Your task to perform on an android device: Do I have any events this weekend? Image 0: 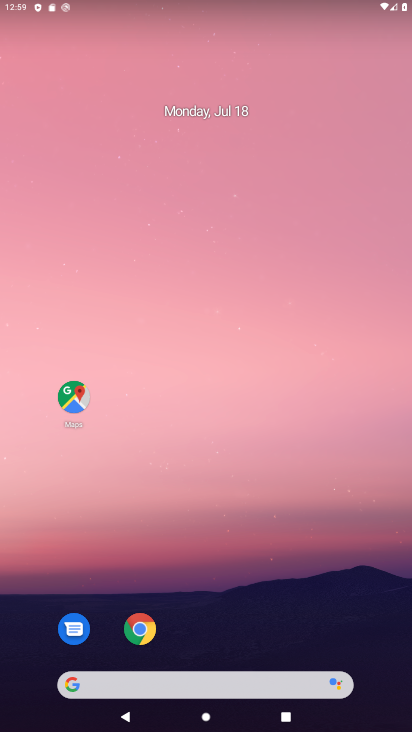
Step 0: click (197, 116)
Your task to perform on an android device: Do I have any events this weekend? Image 1: 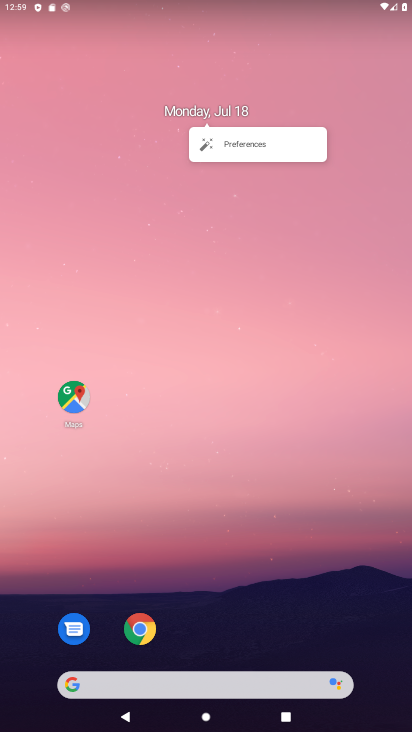
Step 1: click (172, 120)
Your task to perform on an android device: Do I have any events this weekend? Image 2: 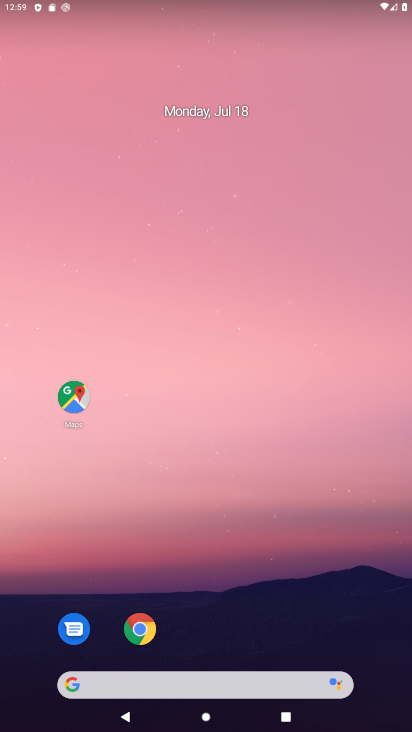
Step 2: click (172, 120)
Your task to perform on an android device: Do I have any events this weekend? Image 3: 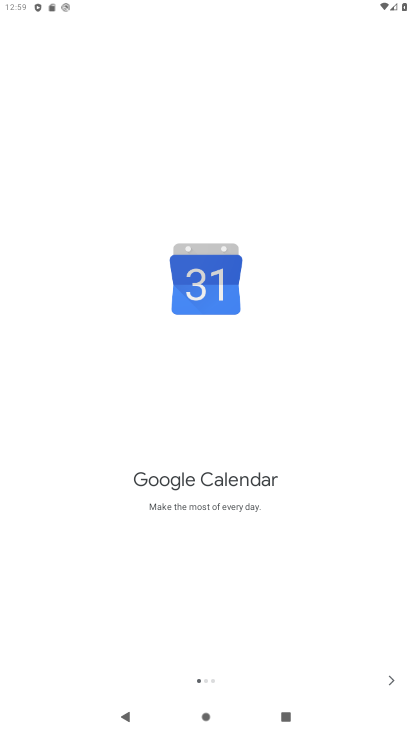
Step 3: click (186, 110)
Your task to perform on an android device: Do I have any events this weekend? Image 4: 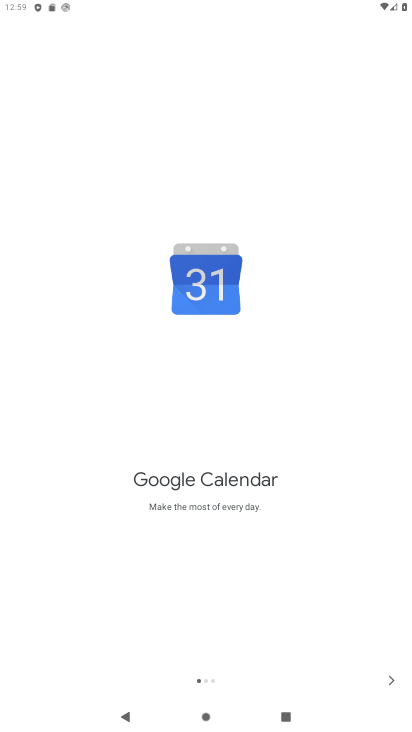
Step 4: click (380, 682)
Your task to perform on an android device: Do I have any events this weekend? Image 5: 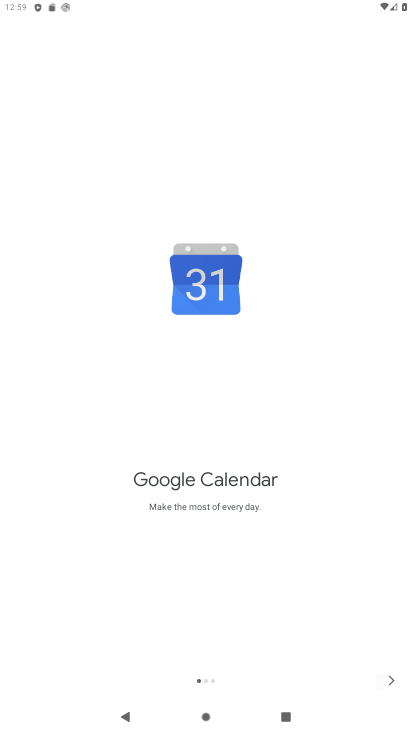
Step 5: click (380, 682)
Your task to perform on an android device: Do I have any events this weekend? Image 6: 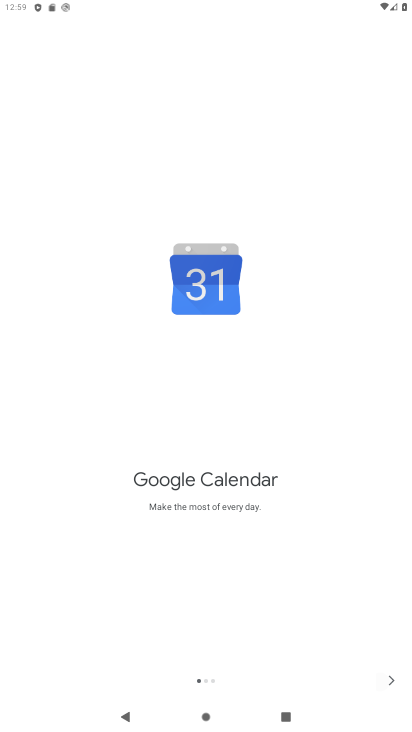
Step 6: click (380, 682)
Your task to perform on an android device: Do I have any events this weekend? Image 7: 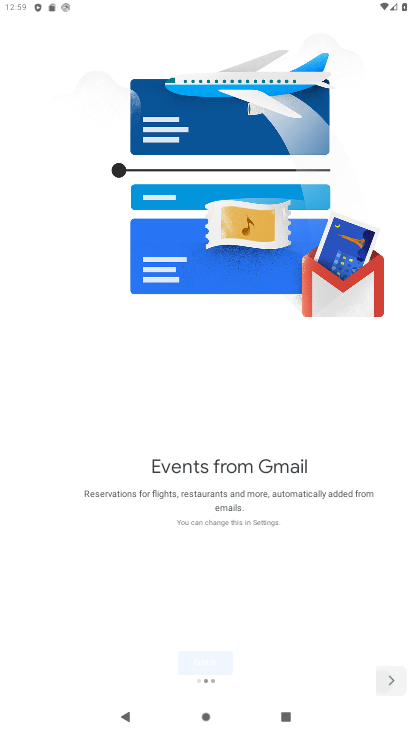
Step 7: click (380, 682)
Your task to perform on an android device: Do I have any events this weekend? Image 8: 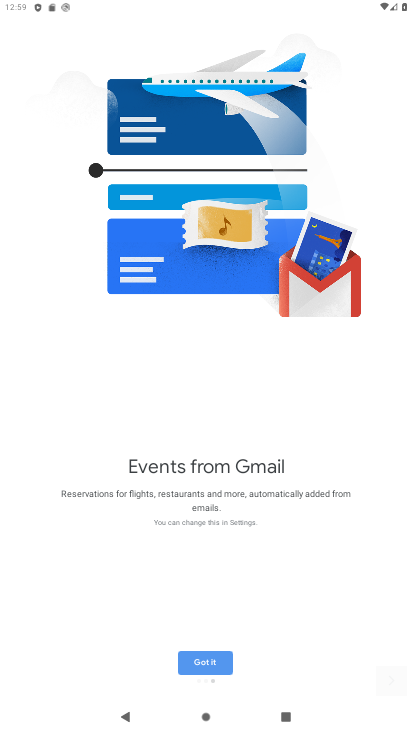
Step 8: click (380, 682)
Your task to perform on an android device: Do I have any events this weekend? Image 9: 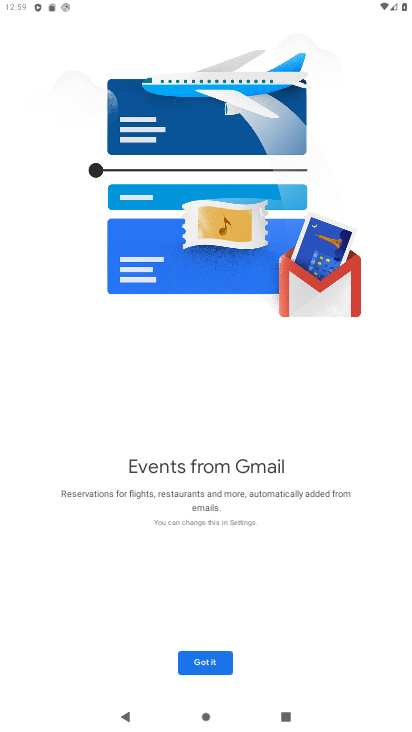
Step 9: click (380, 682)
Your task to perform on an android device: Do I have any events this weekend? Image 10: 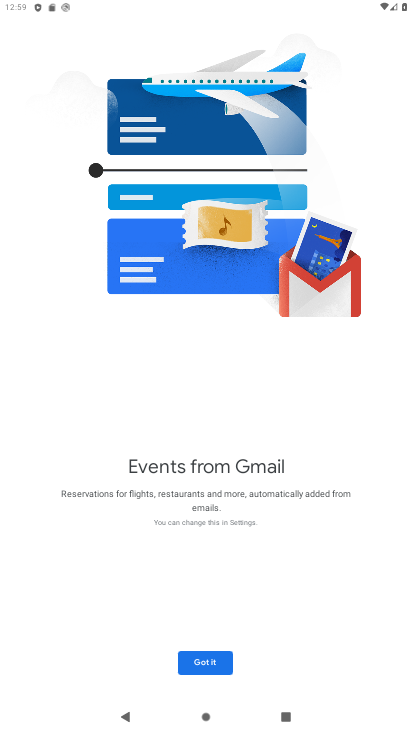
Step 10: click (219, 666)
Your task to perform on an android device: Do I have any events this weekend? Image 11: 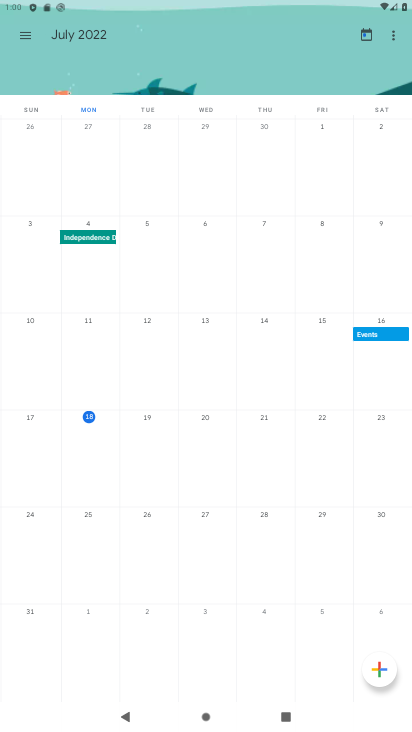
Step 11: task complete